Your task to perform on an android device: turn on translation in the chrome app Image 0: 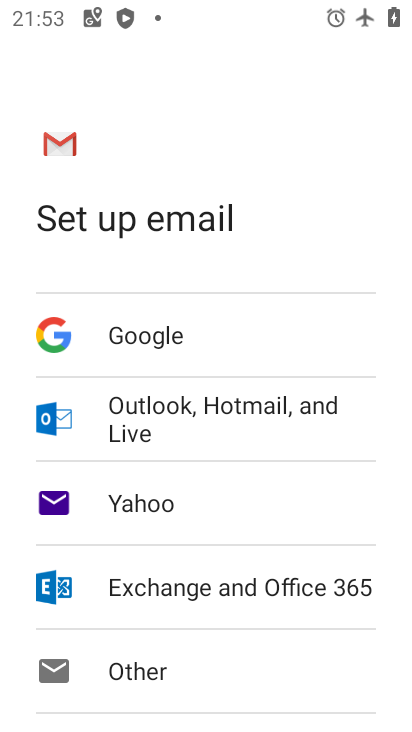
Step 0: press home button
Your task to perform on an android device: turn on translation in the chrome app Image 1: 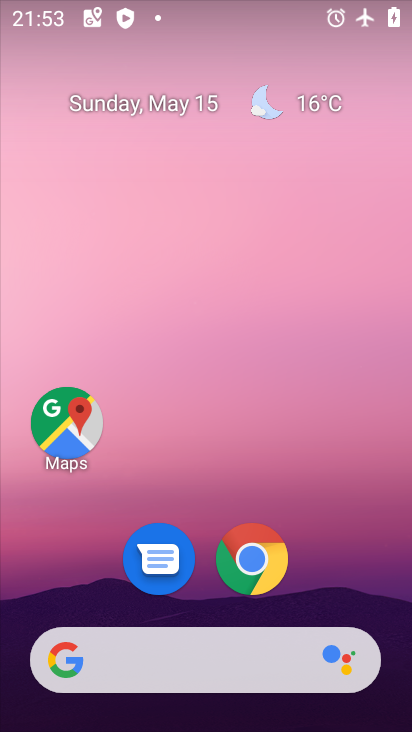
Step 1: click (246, 561)
Your task to perform on an android device: turn on translation in the chrome app Image 2: 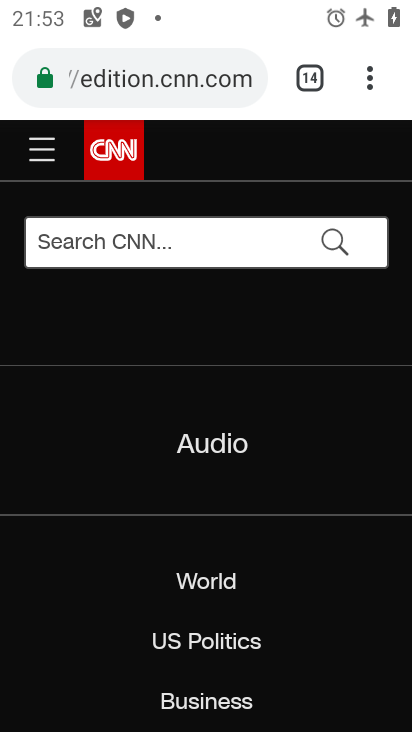
Step 2: click (370, 77)
Your task to perform on an android device: turn on translation in the chrome app Image 3: 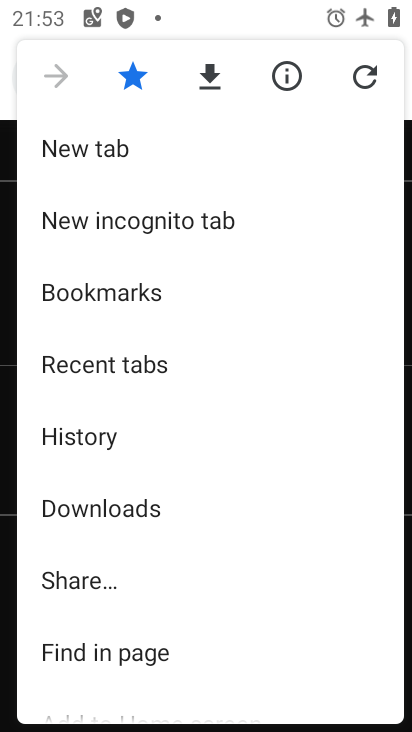
Step 3: drag from (239, 484) to (218, 51)
Your task to perform on an android device: turn on translation in the chrome app Image 4: 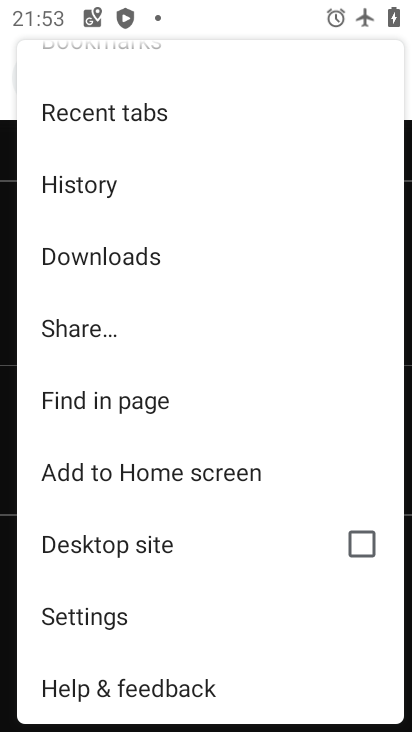
Step 4: click (87, 612)
Your task to perform on an android device: turn on translation in the chrome app Image 5: 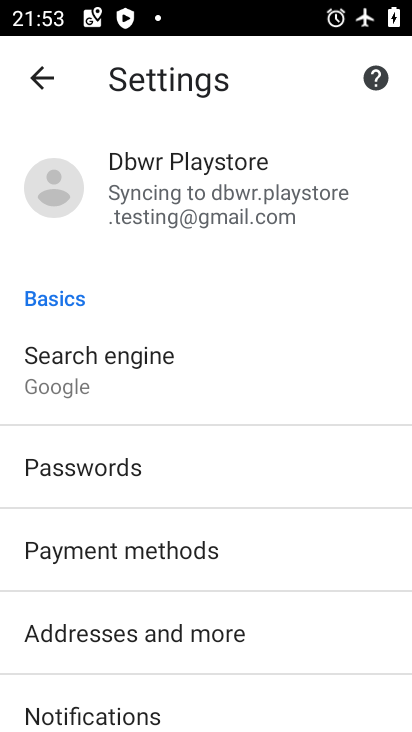
Step 5: drag from (288, 590) to (286, 305)
Your task to perform on an android device: turn on translation in the chrome app Image 6: 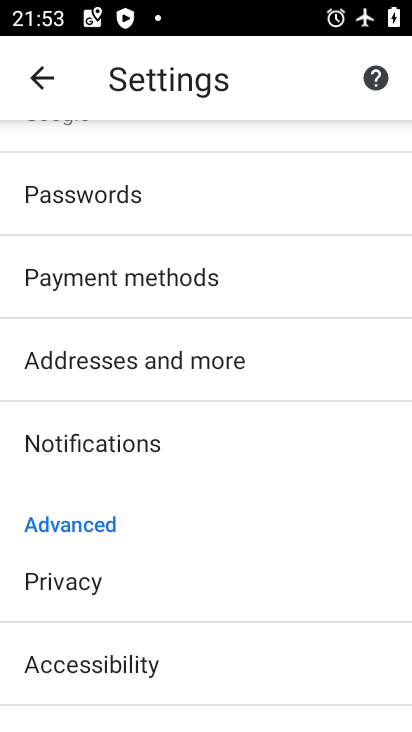
Step 6: click (278, 581)
Your task to perform on an android device: turn on translation in the chrome app Image 7: 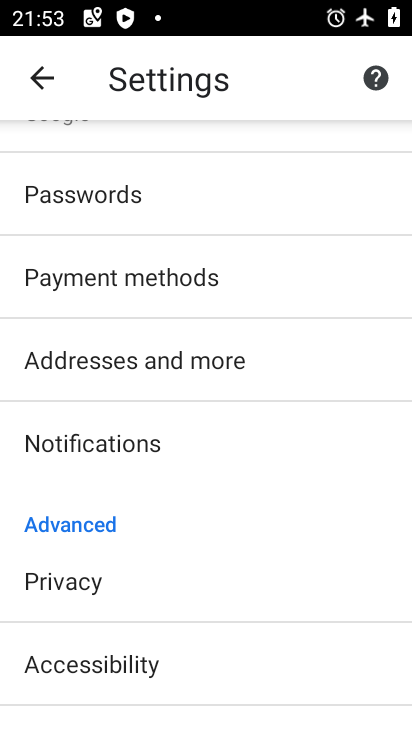
Step 7: drag from (278, 581) to (265, 300)
Your task to perform on an android device: turn on translation in the chrome app Image 8: 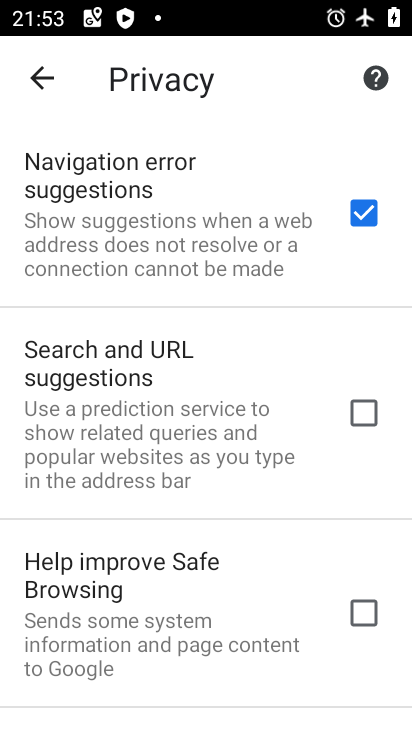
Step 8: click (34, 80)
Your task to perform on an android device: turn on translation in the chrome app Image 9: 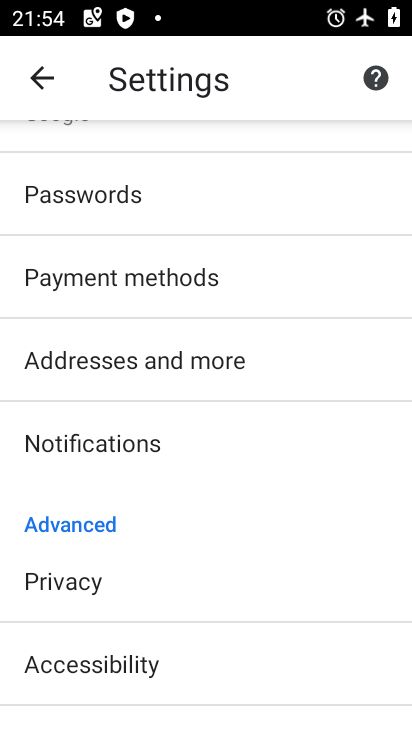
Step 9: drag from (198, 567) to (163, 196)
Your task to perform on an android device: turn on translation in the chrome app Image 10: 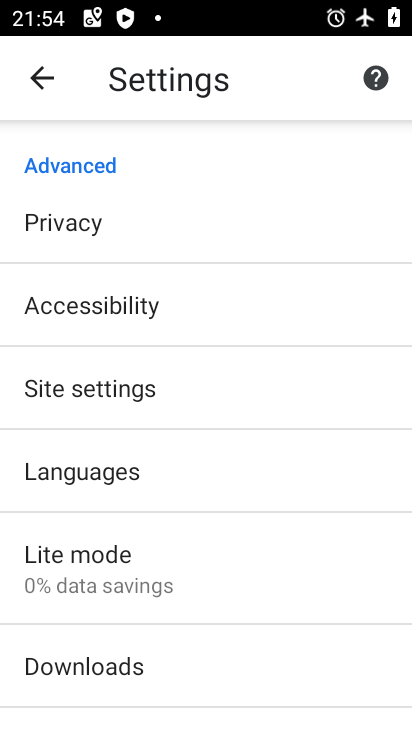
Step 10: click (101, 461)
Your task to perform on an android device: turn on translation in the chrome app Image 11: 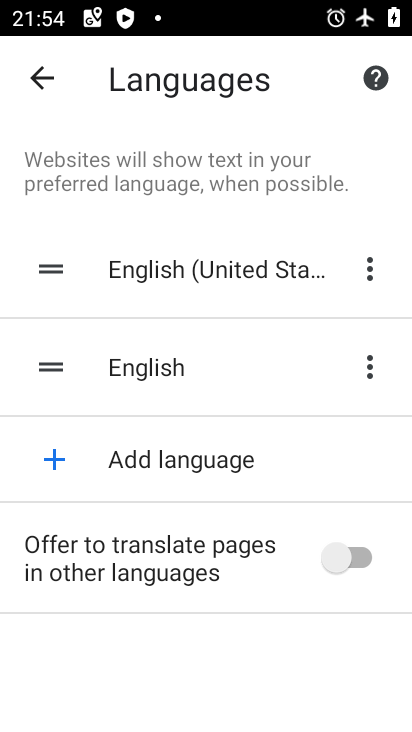
Step 11: click (347, 562)
Your task to perform on an android device: turn on translation in the chrome app Image 12: 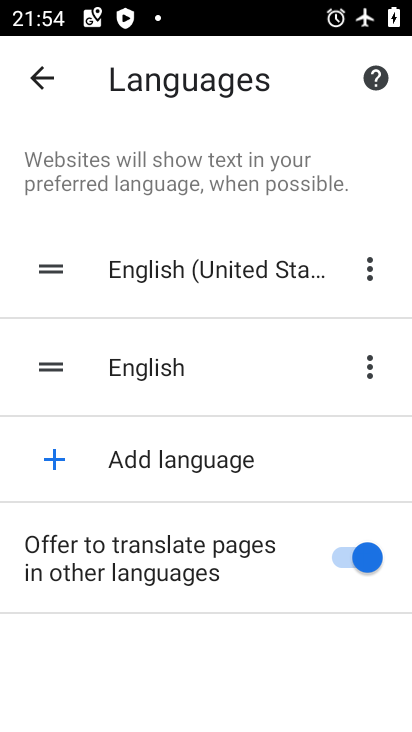
Step 12: task complete